Your task to perform on an android device: Open calendar and show me the third week of next month Image 0: 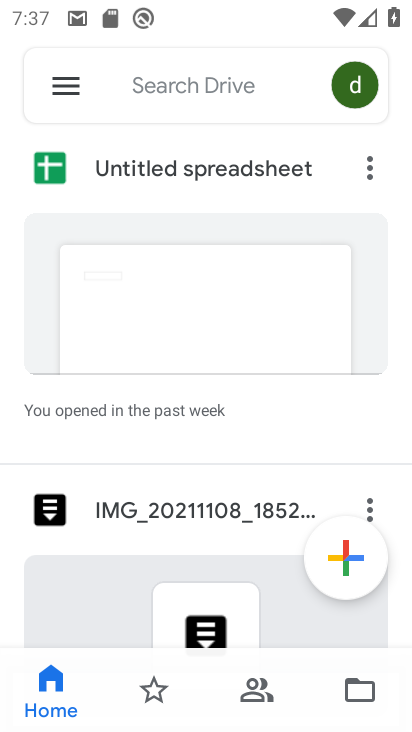
Step 0: press home button
Your task to perform on an android device: Open calendar and show me the third week of next month Image 1: 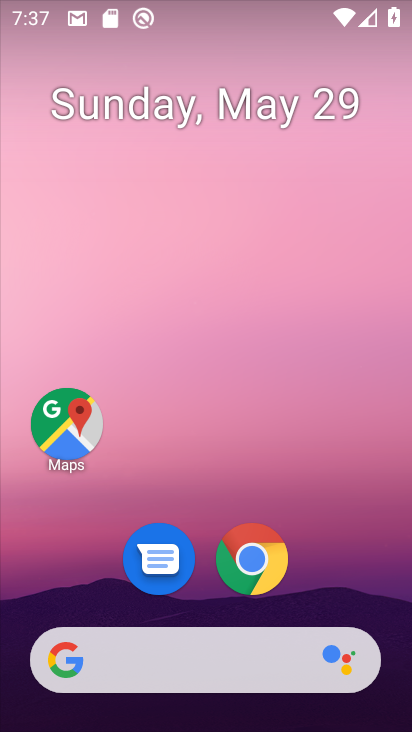
Step 1: drag from (356, 586) to (370, 183)
Your task to perform on an android device: Open calendar and show me the third week of next month Image 2: 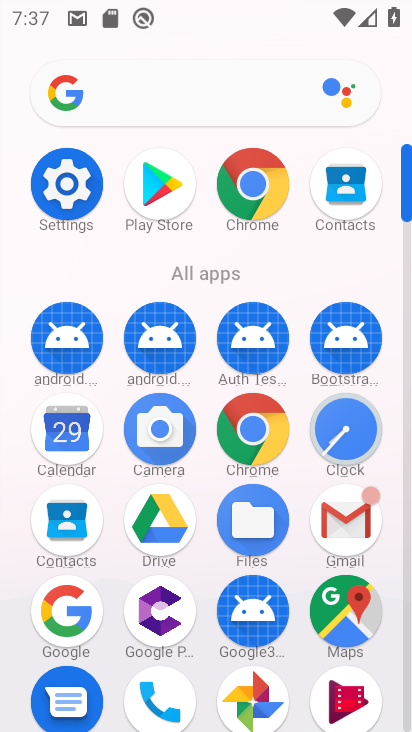
Step 2: click (66, 409)
Your task to perform on an android device: Open calendar and show me the third week of next month Image 3: 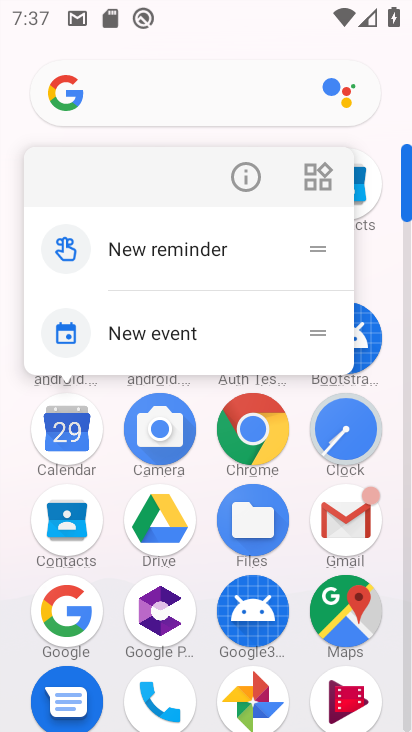
Step 3: click (68, 429)
Your task to perform on an android device: Open calendar and show me the third week of next month Image 4: 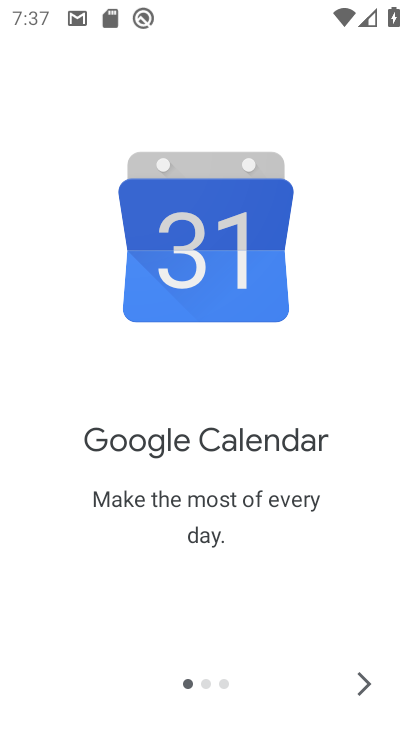
Step 4: click (369, 685)
Your task to perform on an android device: Open calendar and show me the third week of next month Image 5: 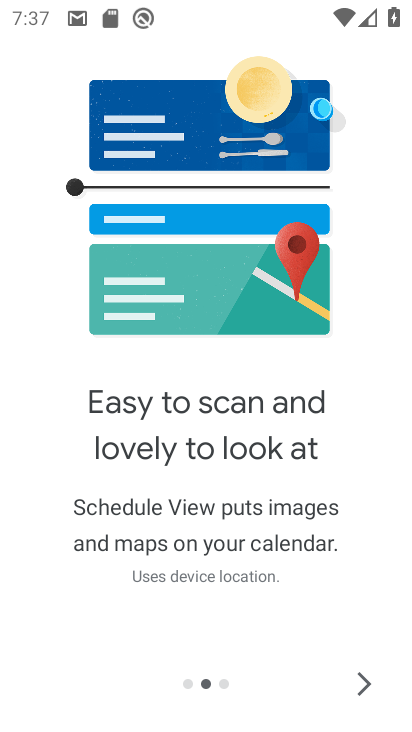
Step 5: click (368, 685)
Your task to perform on an android device: Open calendar and show me the third week of next month Image 6: 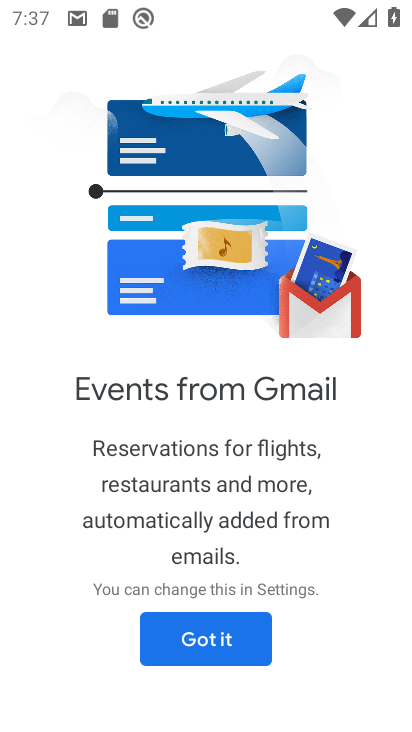
Step 6: click (207, 646)
Your task to perform on an android device: Open calendar and show me the third week of next month Image 7: 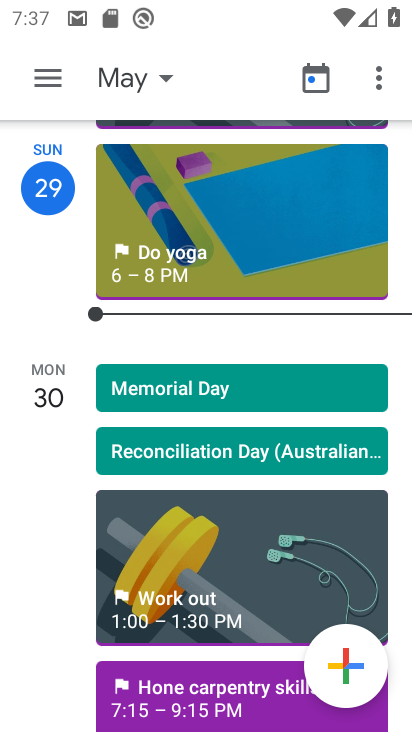
Step 7: click (163, 76)
Your task to perform on an android device: Open calendar and show me the third week of next month Image 8: 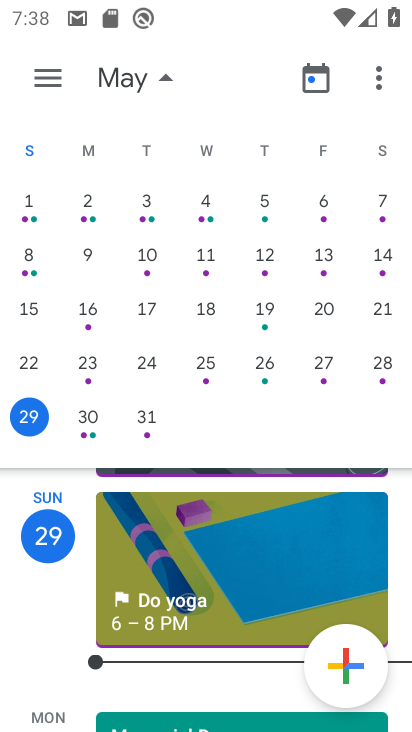
Step 8: drag from (401, 180) to (10, 182)
Your task to perform on an android device: Open calendar and show me the third week of next month Image 9: 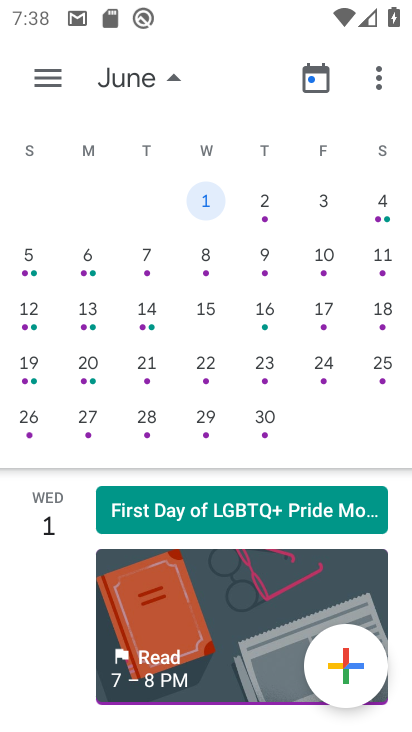
Step 9: click (93, 380)
Your task to perform on an android device: Open calendar and show me the third week of next month Image 10: 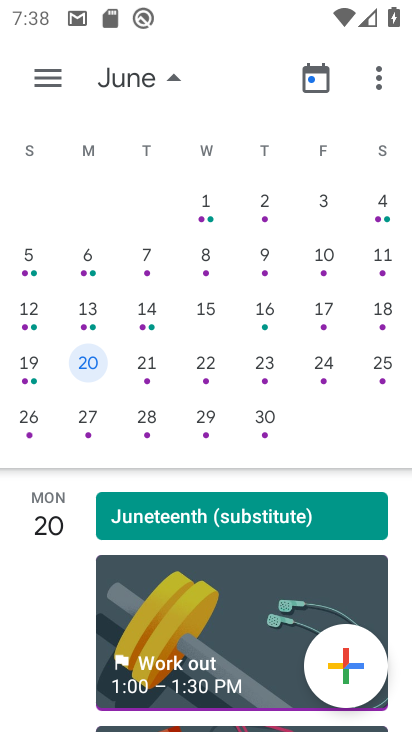
Step 10: task complete